Your task to perform on an android device: toggle javascript in the chrome app Image 0: 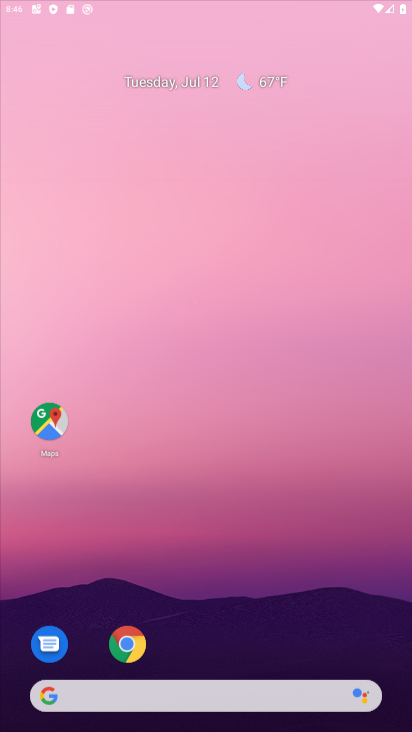
Step 0: drag from (165, 647) to (232, 116)
Your task to perform on an android device: toggle javascript in the chrome app Image 1: 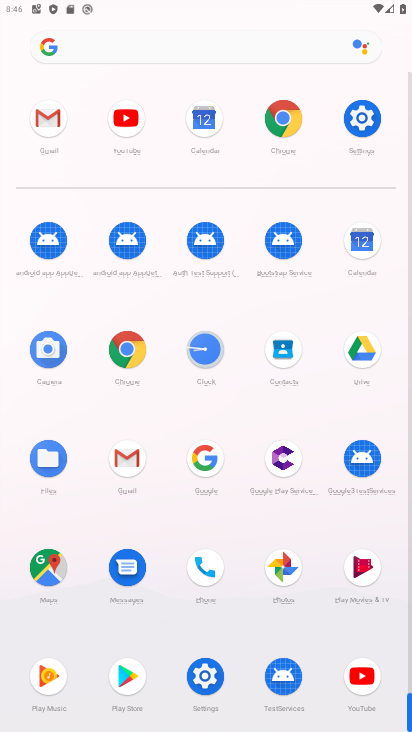
Step 1: click (128, 344)
Your task to perform on an android device: toggle javascript in the chrome app Image 2: 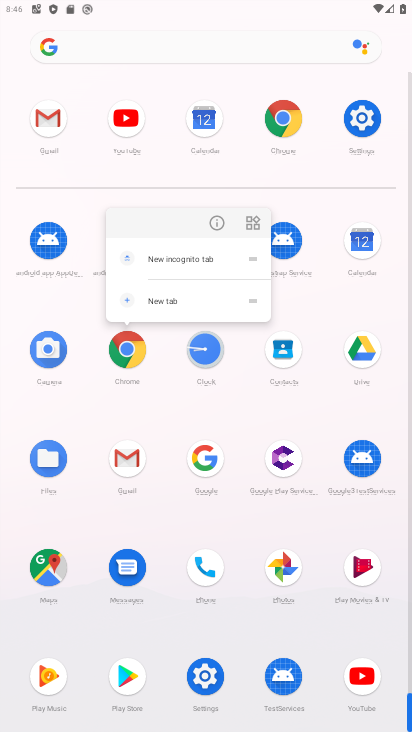
Step 2: click (205, 218)
Your task to perform on an android device: toggle javascript in the chrome app Image 3: 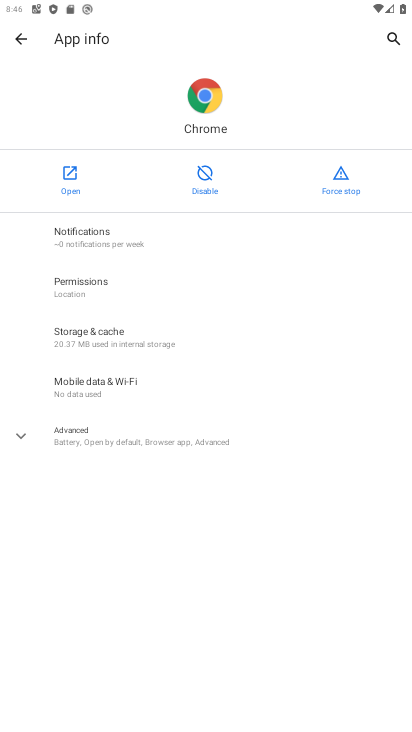
Step 3: click (59, 172)
Your task to perform on an android device: toggle javascript in the chrome app Image 4: 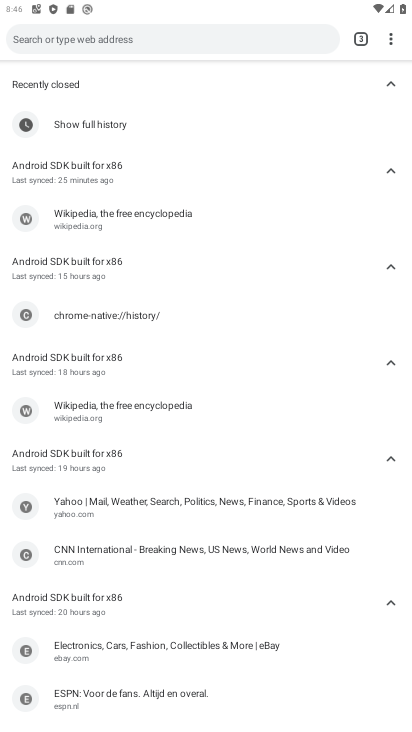
Step 4: drag from (199, 493) to (252, 133)
Your task to perform on an android device: toggle javascript in the chrome app Image 5: 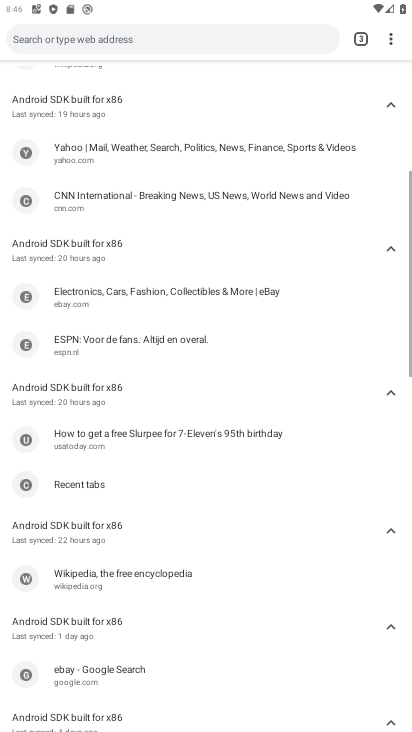
Step 5: drag from (238, 150) to (290, 726)
Your task to perform on an android device: toggle javascript in the chrome app Image 6: 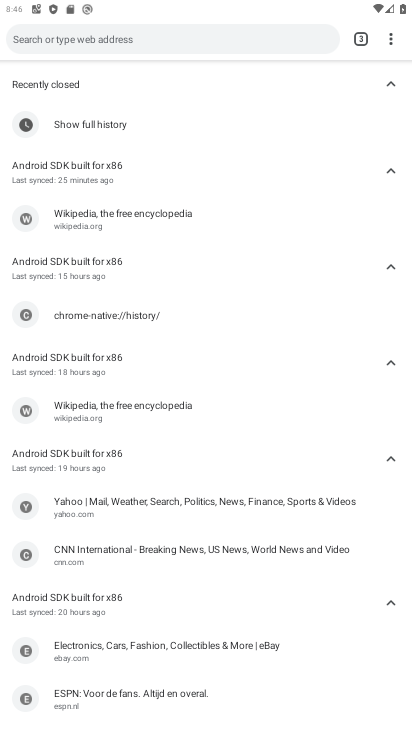
Step 6: click (384, 34)
Your task to perform on an android device: toggle javascript in the chrome app Image 7: 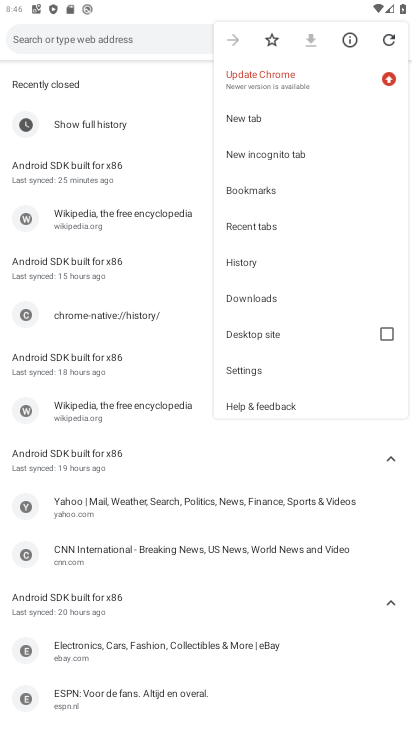
Step 7: drag from (290, 370) to (336, 82)
Your task to perform on an android device: toggle javascript in the chrome app Image 8: 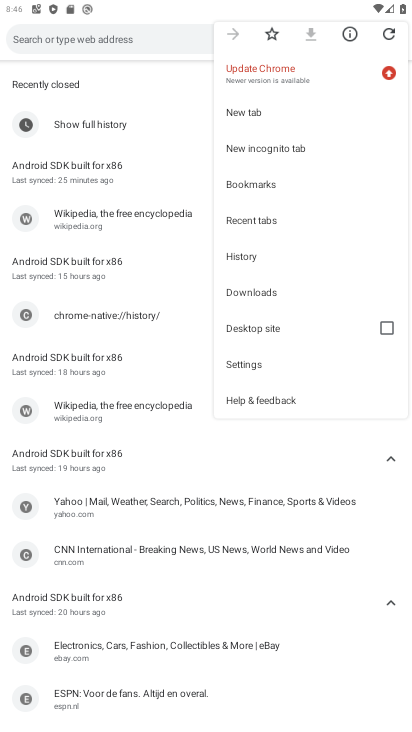
Step 8: click (263, 364)
Your task to perform on an android device: toggle javascript in the chrome app Image 9: 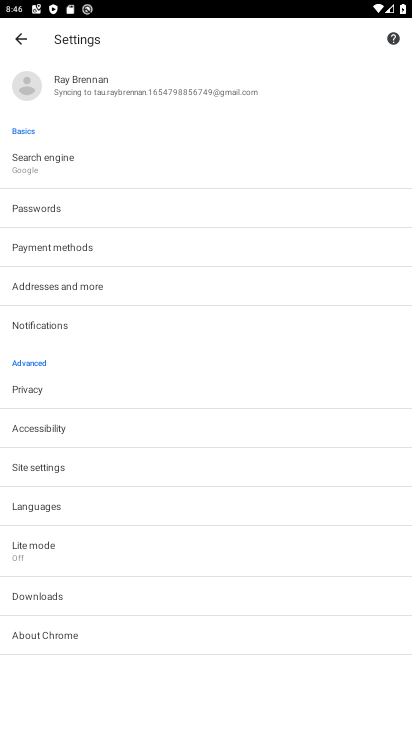
Step 9: click (64, 461)
Your task to perform on an android device: toggle javascript in the chrome app Image 10: 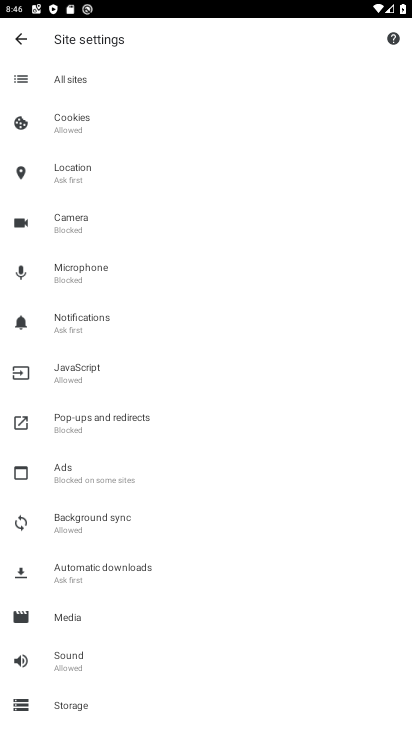
Step 10: click (92, 369)
Your task to perform on an android device: toggle javascript in the chrome app Image 11: 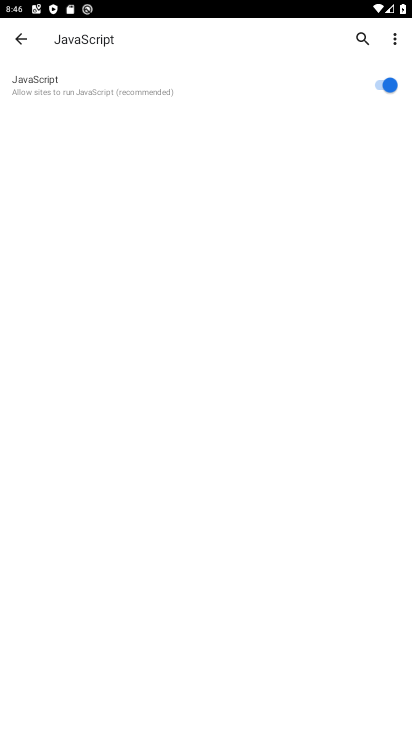
Step 11: click (378, 82)
Your task to perform on an android device: toggle javascript in the chrome app Image 12: 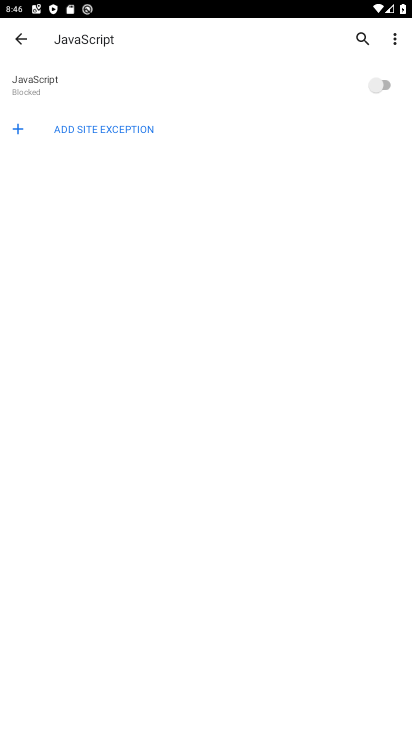
Step 12: task complete